Your task to perform on an android device: create a new album in the google photos Image 0: 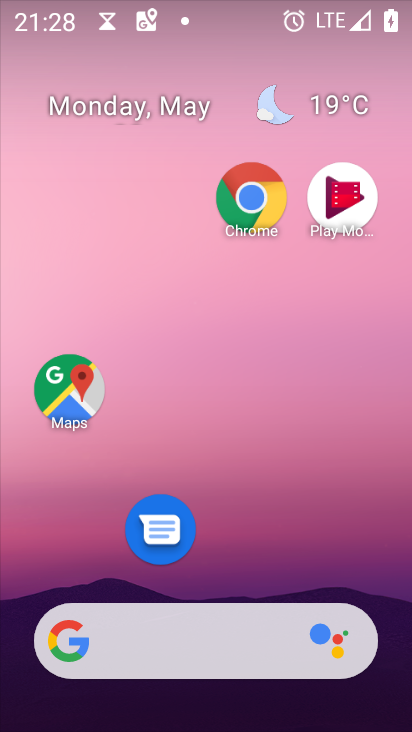
Step 0: drag from (197, 570) to (204, 153)
Your task to perform on an android device: create a new album in the google photos Image 1: 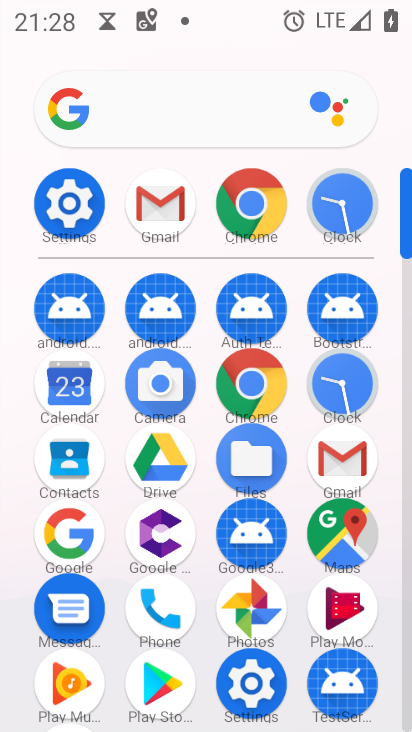
Step 1: click (256, 613)
Your task to perform on an android device: create a new album in the google photos Image 2: 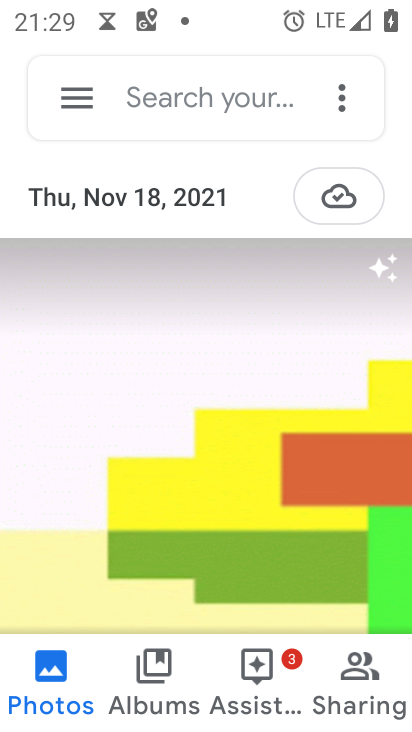
Step 2: click (179, 685)
Your task to perform on an android device: create a new album in the google photos Image 3: 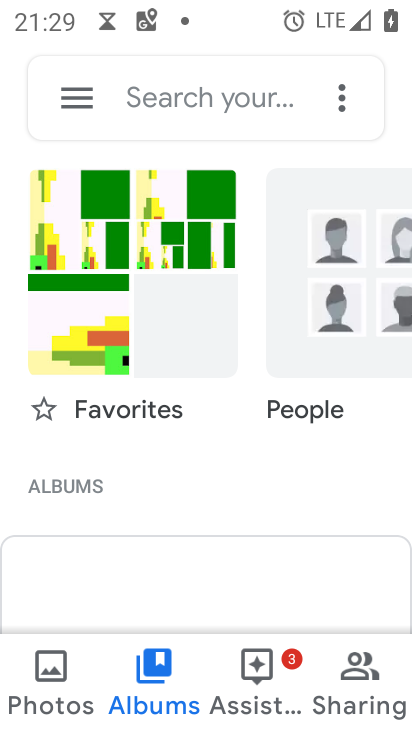
Step 3: drag from (224, 589) to (220, 224)
Your task to perform on an android device: create a new album in the google photos Image 4: 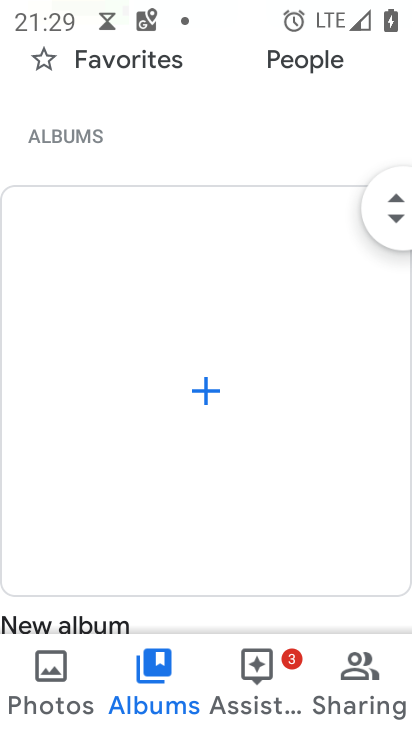
Step 4: click (203, 386)
Your task to perform on an android device: create a new album in the google photos Image 5: 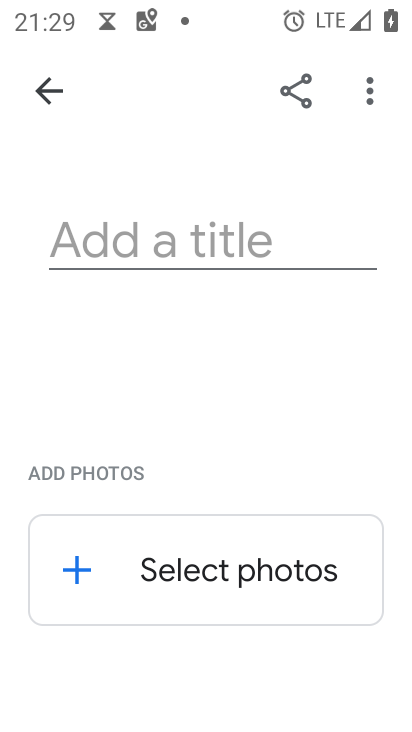
Step 5: click (175, 243)
Your task to perform on an android device: create a new album in the google photos Image 6: 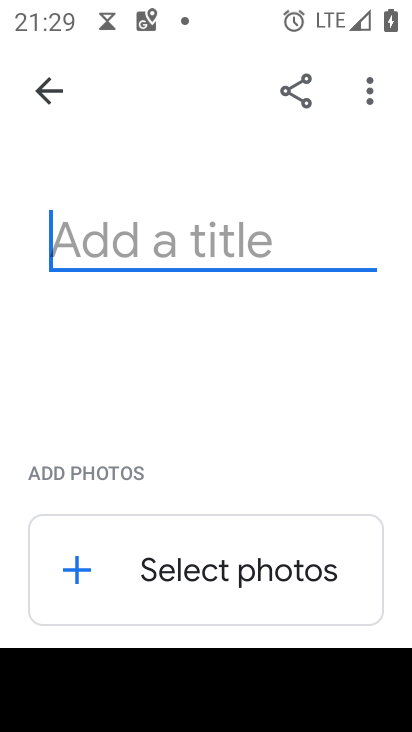
Step 6: type "Street"
Your task to perform on an android device: create a new album in the google photos Image 7: 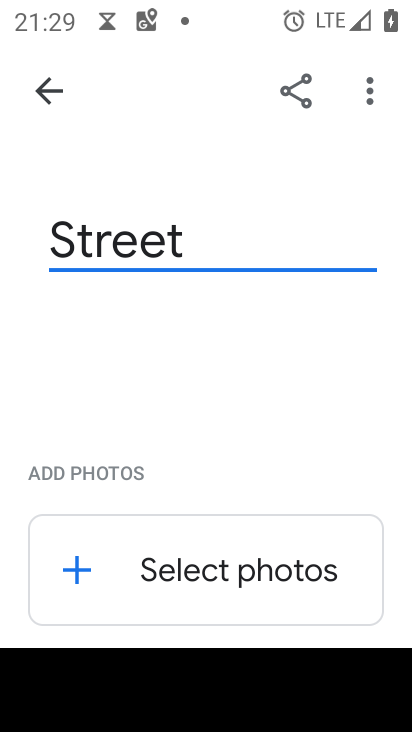
Step 7: click (283, 554)
Your task to perform on an android device: create a new album in the google photos Image 8: 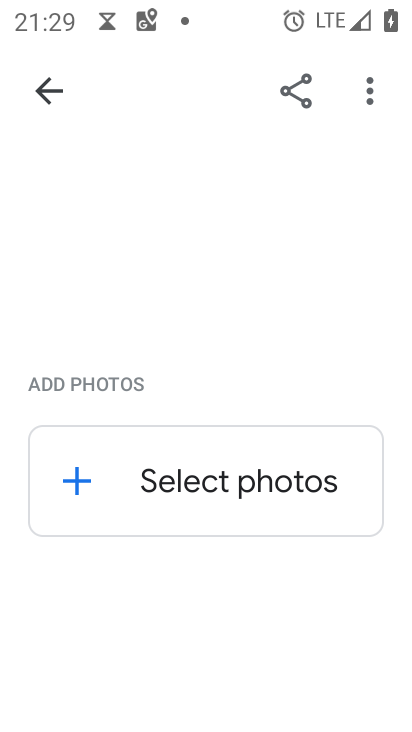
Step 8: click (172, 498)
Your task to perform on an android device: create a new album in the google photos Image 9: 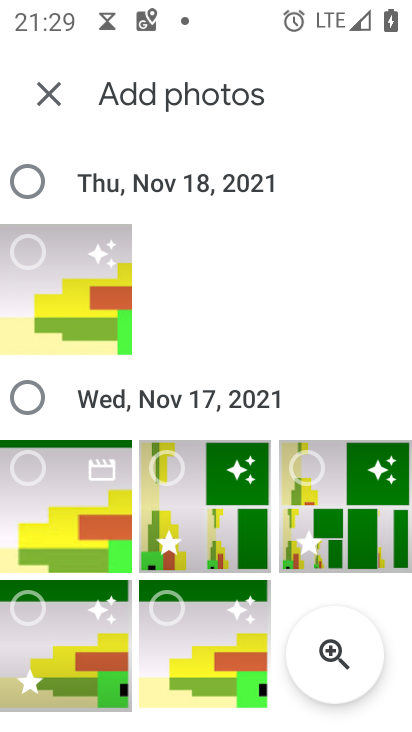
Step 9: click (38, 193)
Your task to perform on an android device: create a new album in the google photos Image 10: 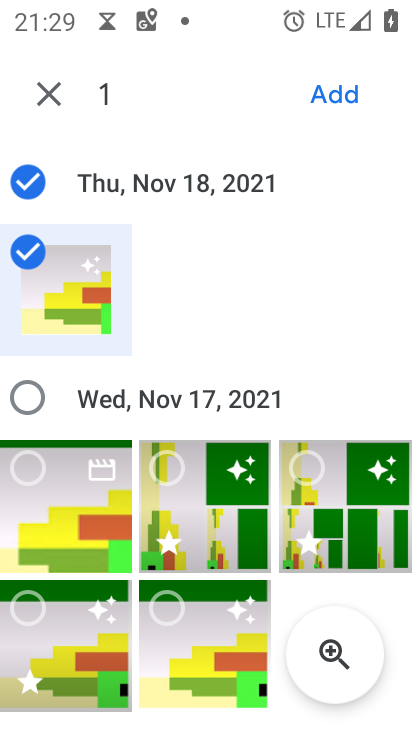
Step 10: click (342, 108)
Your task to perform on an android device: create a new album in the google photos Image 11: 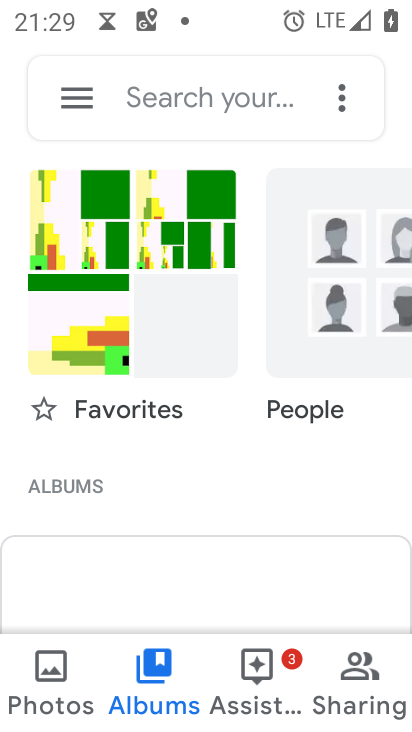
Step 11: task complete